Your task to perform on an android device: move a message to another label in the gmail app Image 0: 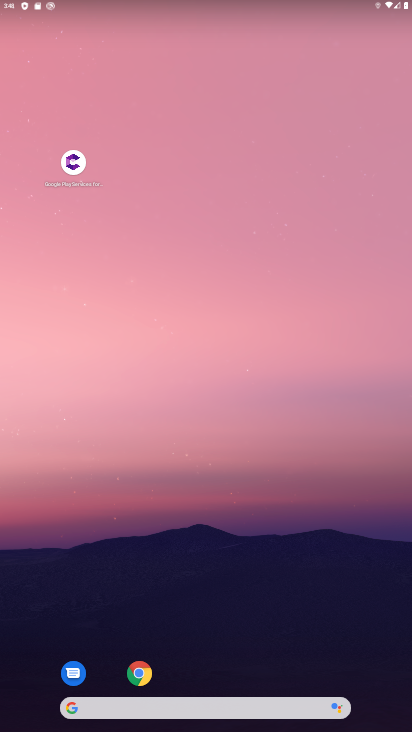
Step 0: drag from (214, 678) to (261, 141)
Your task to perform on an android device: move a message to another label in the gmail app Image 1: 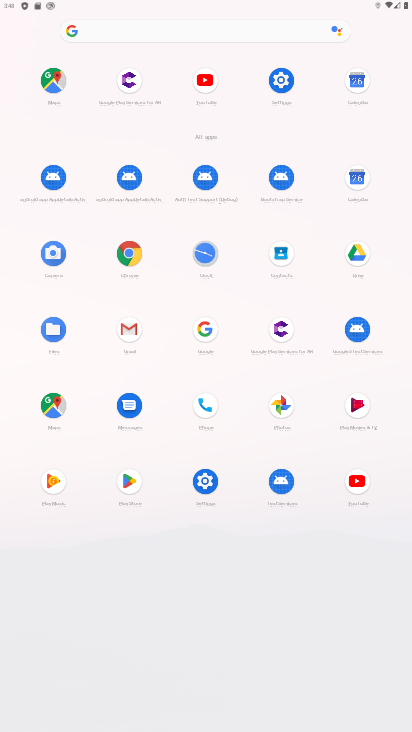
Step 1: click (127, 323)
Your task to perform on an android device: move a message to another label in the gmail app Image 2: 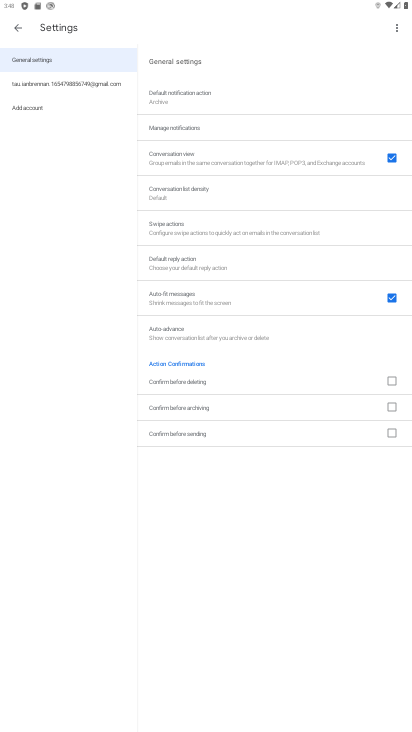
Step 2: click (16, 26)
Your task to perform on an android device: move a message to another label in the gmail app Image 3: 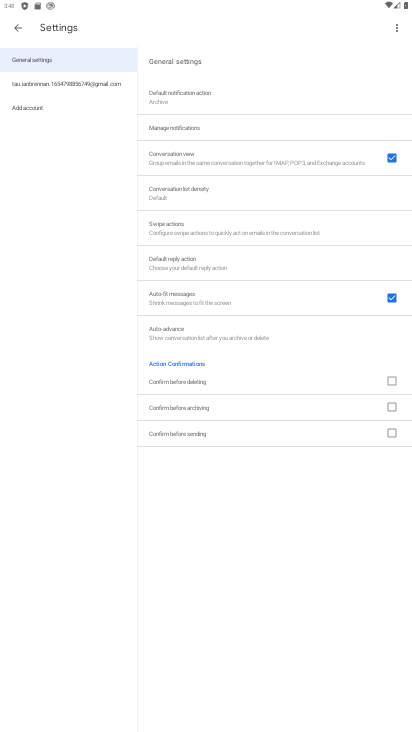
Step 3: click (14, 27)
Your task to perform on an android device: move a message to another label in the gmail app Image 4: 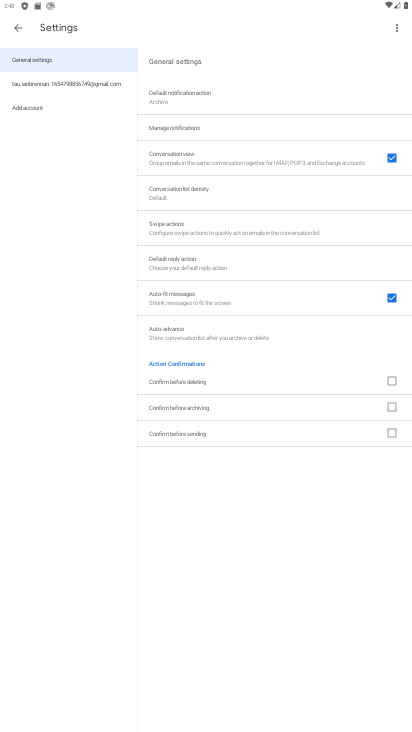
Step 4: click (17, 27)
Your task to perform on an android device: move a message to another label in the gmail app Image 5: 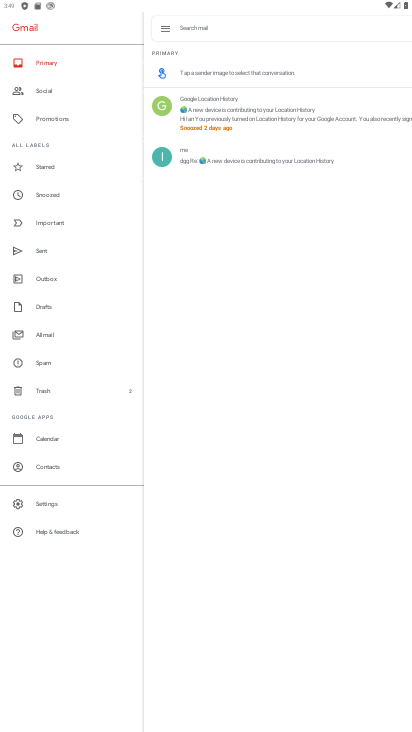
Step 5: click (50, 330)
Your task to perform on an android device: move a message to another label in the gmail app Image 6: 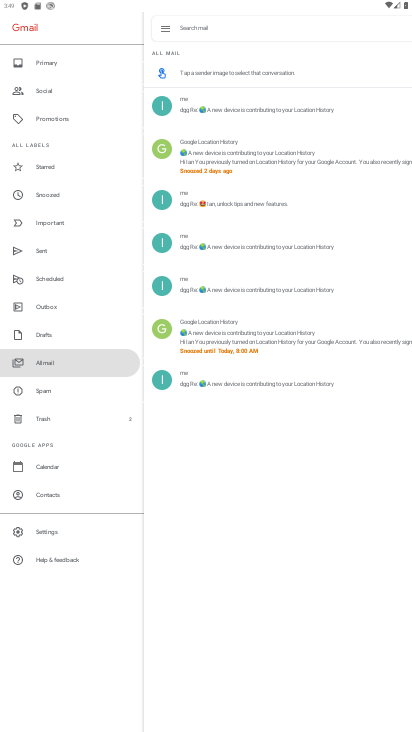
Step 6: task complete